Your task to perform on an android device: set the stopwatch Image 0: 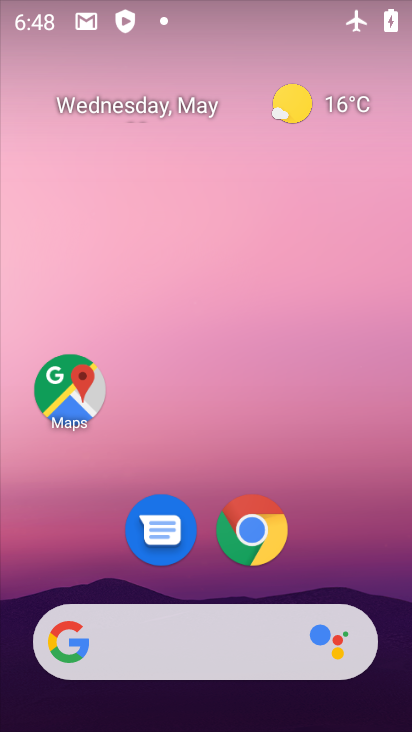
Step 0: drag from (243, 545) to (250, 234)
Your task to perform on an android device: set the stopwatch Image 1: 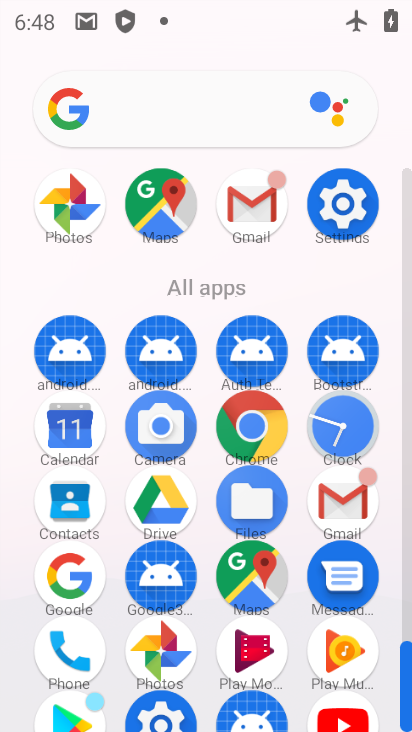
Step 1: click (354, 426)
Your task to perform on an android device: set the stopwatch Image 2: 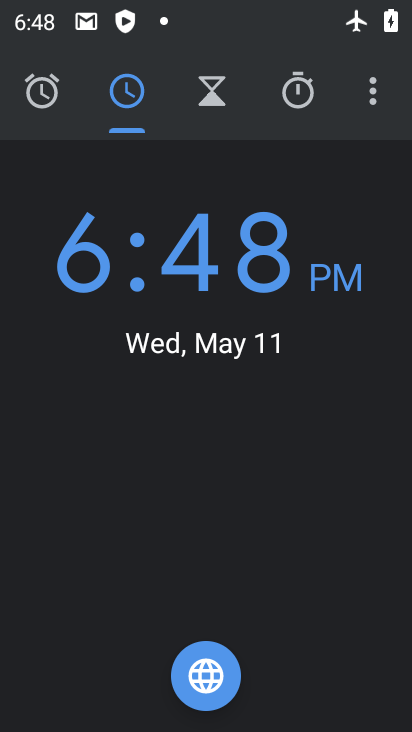
Step 2: click (300, 101)
Your task to perform on an android device: set the stopwatch Image 3: 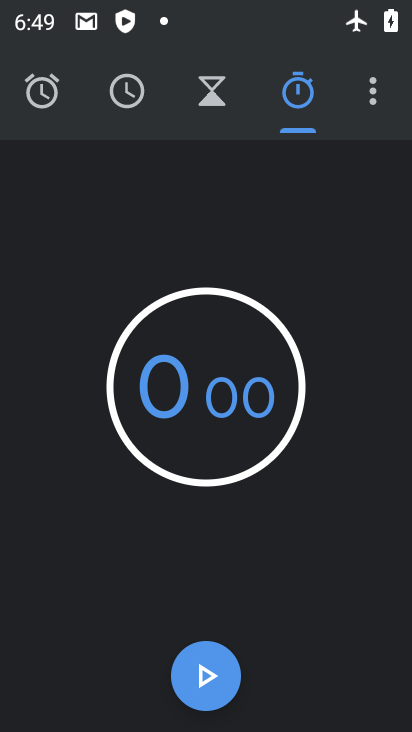
Step 3: click (208, 379)
Your task to perform on an android device: set the stopwatch Image 4: 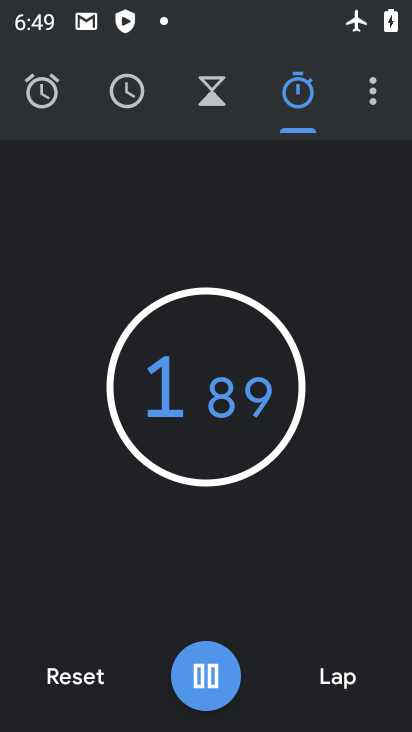
Step 4: click (228, 399)
Your task to perform on an android device: set the stopwatch Image 5: 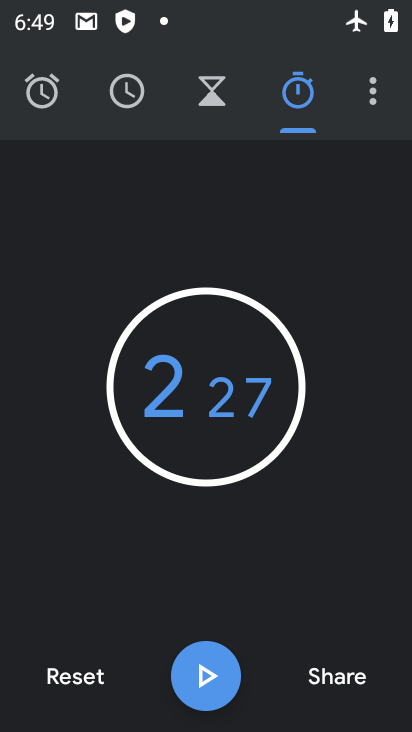
Step 5: task complete